Your task to perform on an android device: open app "Nova Launcher" (install if not already installed) and enter user name: "haggard@gmail.com" and password: "sadder" Image 0: 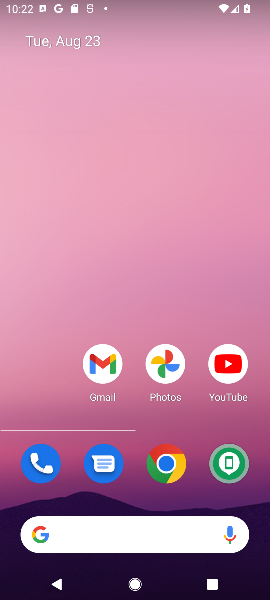
Step 0: press home button
Your task to perform on an android device: open app "Nova Launcher" (install if not already installed) and enter user name: "haggard@gmail.com" and password: "sadder" Image 1: 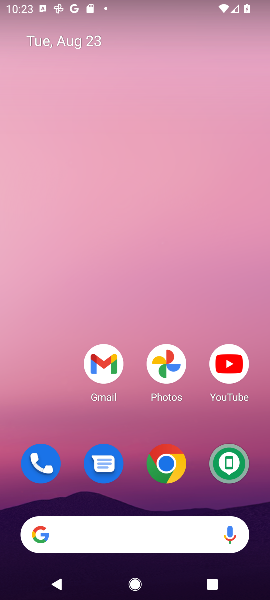
Step 1: drag from (135, 442) to (147, 4)
Your task to perform on an android device: open app "Nova Launcher" (install if not already installed) and enter user name: "haggard@gmail.com" and password: "sadder" Image 2: 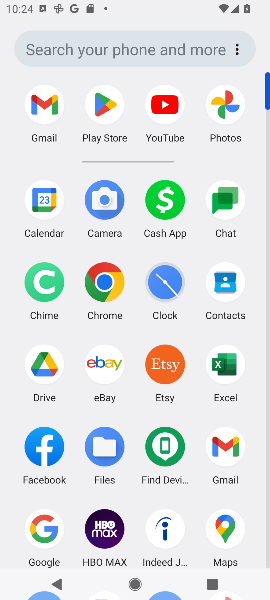
Step 2: click (108, 99)
Your task to perform on an android device: open app "Nova Launcher" (install if not already installed) and enter user name: "haggard@gmail.com" and password: "sadder" Image 3: 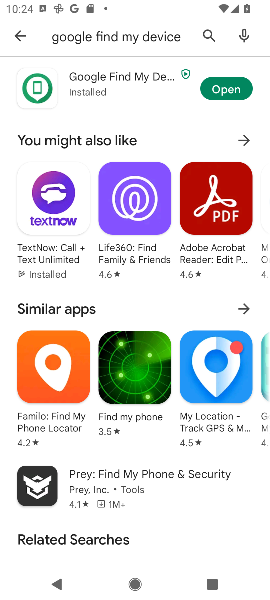
Step 3: click (203, 29)
Your task to perform on an android device: open app "Nova Launcher" (install if not already installed) and enter user name: "haggard@gmail.com" and password: "sadder" Image 4: 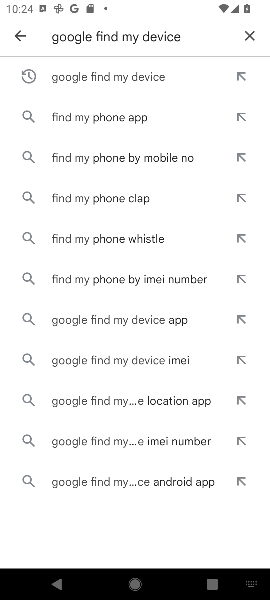
Step 4: click (252, 36)
Your task to perform on an android device: open app "Nova Launcher" (install if not already installed) and enter user name: "haggard@gmail.com" and password: "sadder" Image 5: 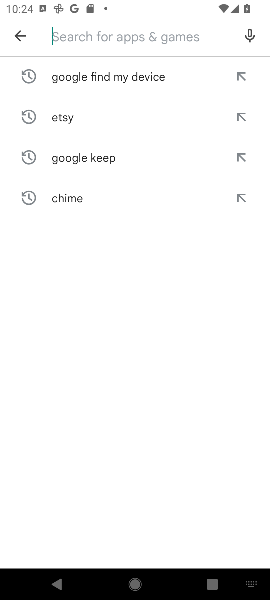
Step 5: type "Nova Launcher"
Your task to perform on an android device: open app "Nova Launcher" (install if not already installed) and enter user name: "haggard@gmail.com" and password: "sadder" Image 6: 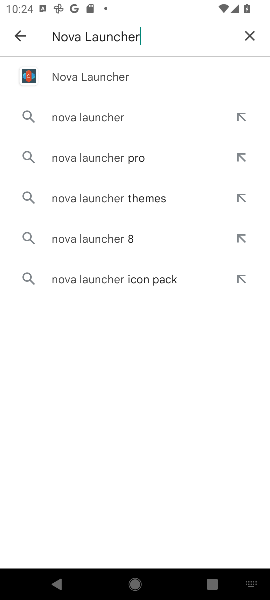
Step 6: click (140, 67)
Your task to perform on an android device: open app "Nova Launcher" (install if not already installed) and enter user name: "haggard@gmail.com" and password: "sadder" Image 7: 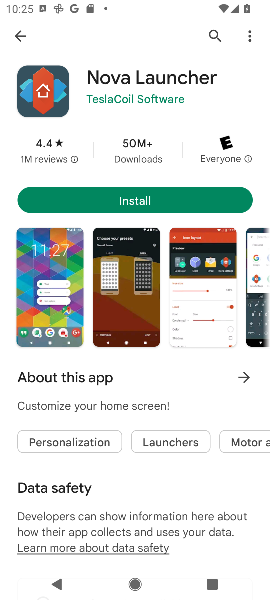
Step 7: click (130, 198)
Your task to perform on an android device: open app "Nova Launcher" (install if not already installed) and enter user name: "haggard@gmail.com" and password: "sadder" Image 8: 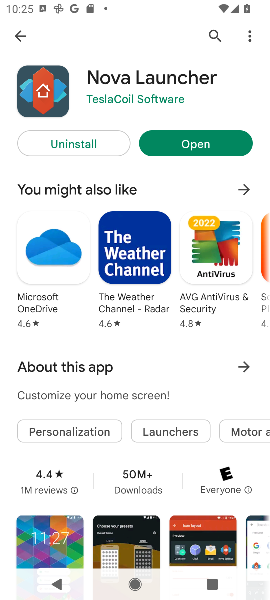
Step 8: click (198, 140)
Your task to perform on an android device: open app "Nova Launcher" (install if not already installed) and enter user name: "haggard@gmail.com" and password: "sadder" Image 9: 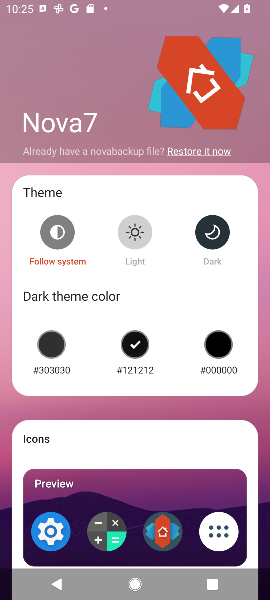
Step 9: task complete